Your task to perform on an android device: find photos in the google photos app Image 0: 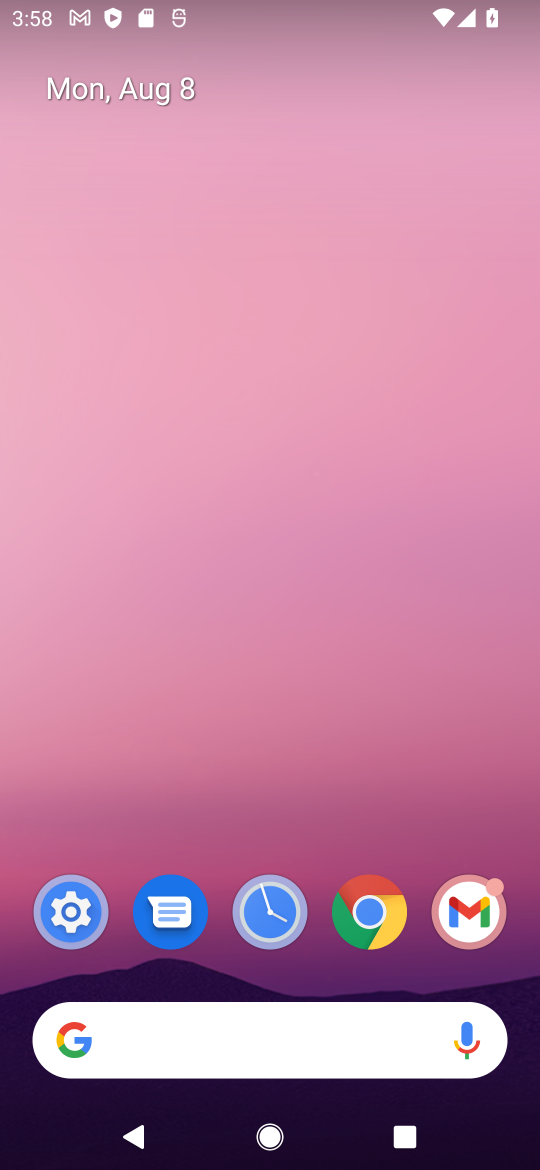
Step 0: drag from (82, 459) to (178, 126)
Your task to perform on an android device: find photos in the google photos app Image 1: 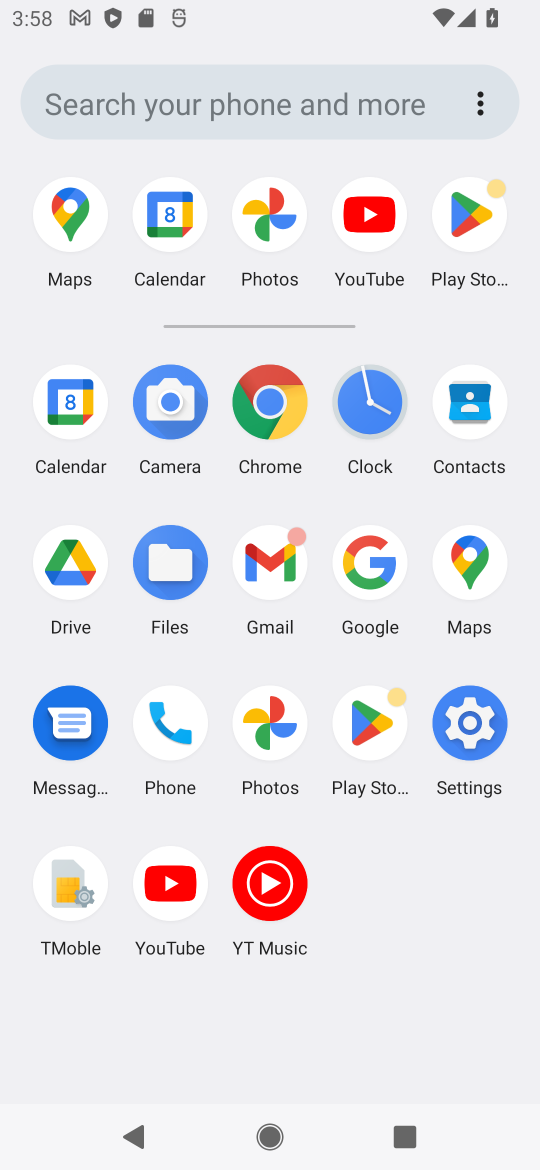
Step 1: click (275, 731)
Your task to perform on an android device: find photos in the google photos app Image 2: 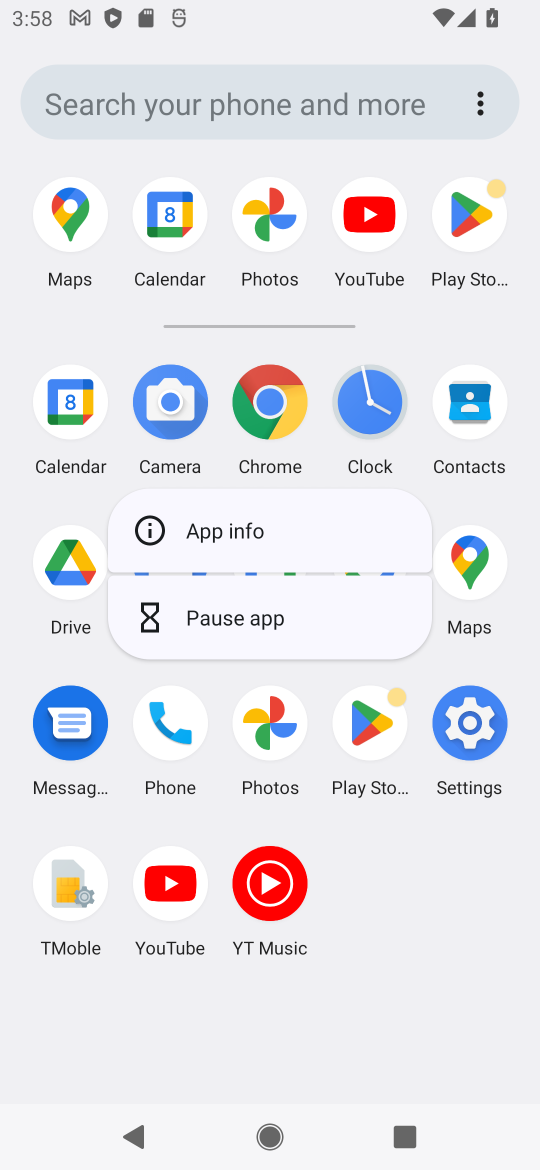
Step 2: click (267, 716)
Your task to perform on an android device: find photos in the google photos app Image 3: 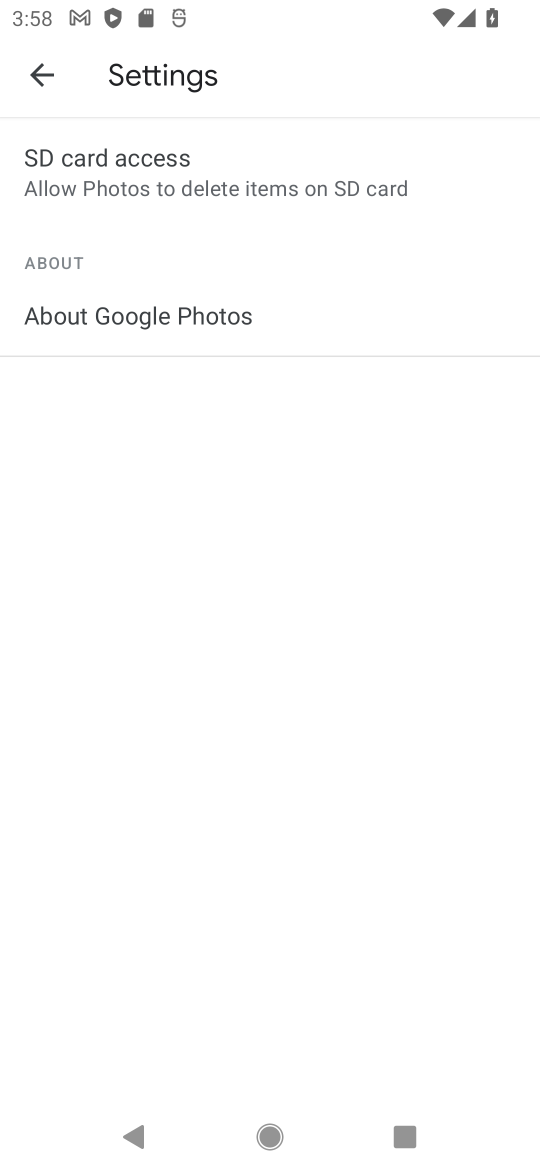
Step 3: click (34, 80)
Your task to perform on an android device: find photos in the google photos app Image 4: 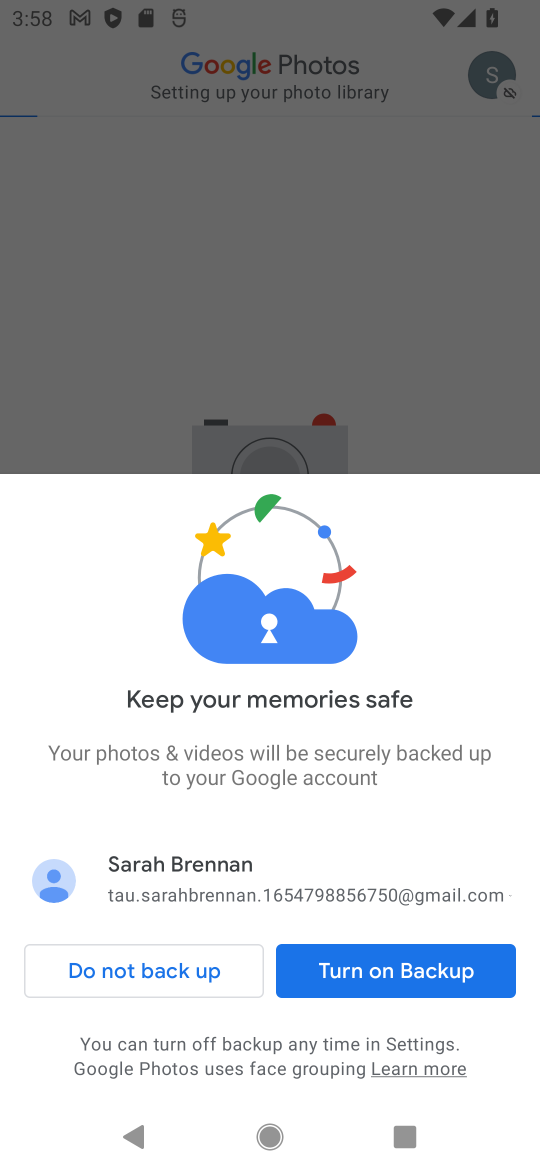
Step 4: task complete